Your task to perform on an android device: What does the iPhone 8 look like? Image 0: 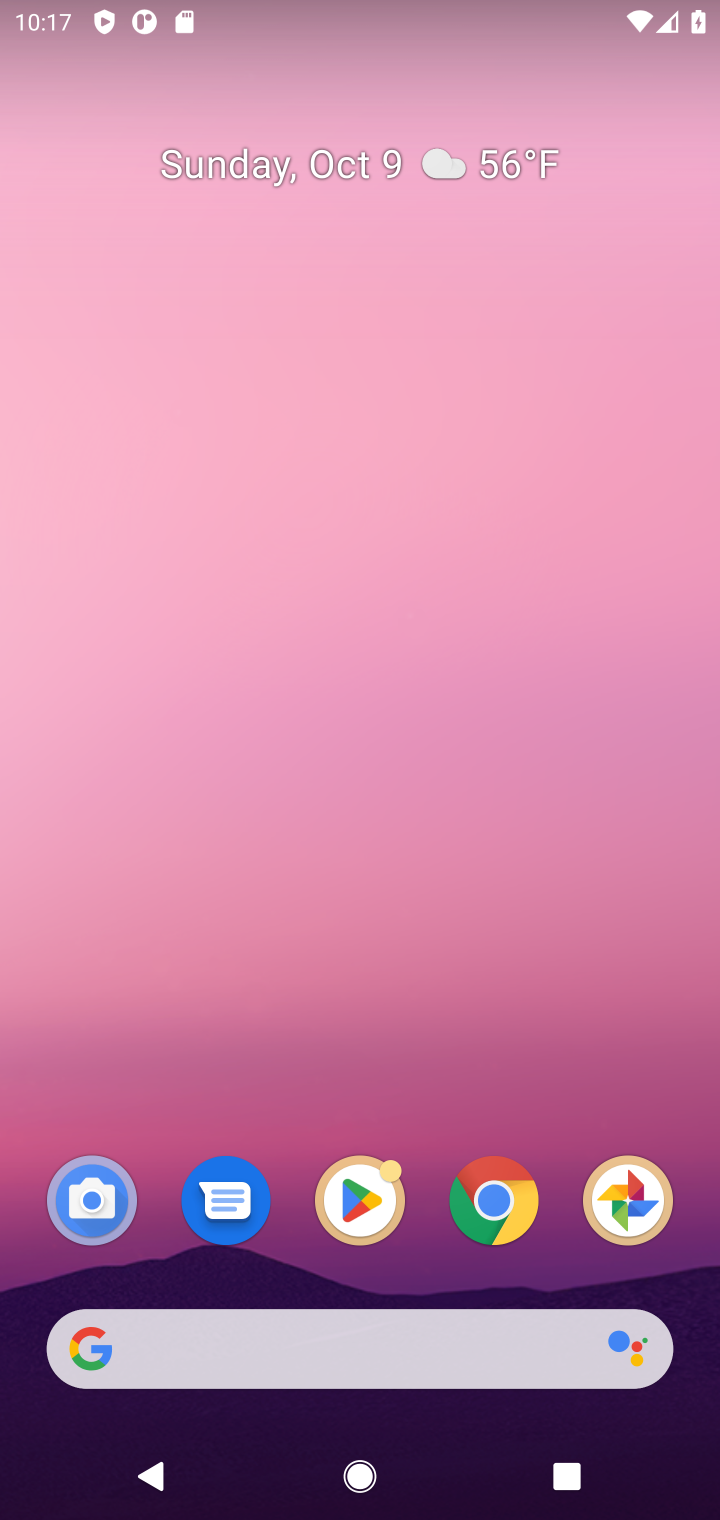
Step 0: drag from (347, 1324) to (118, 390)
Your task to perform on an android device: What does the iPhone 8 look like? Image 1: 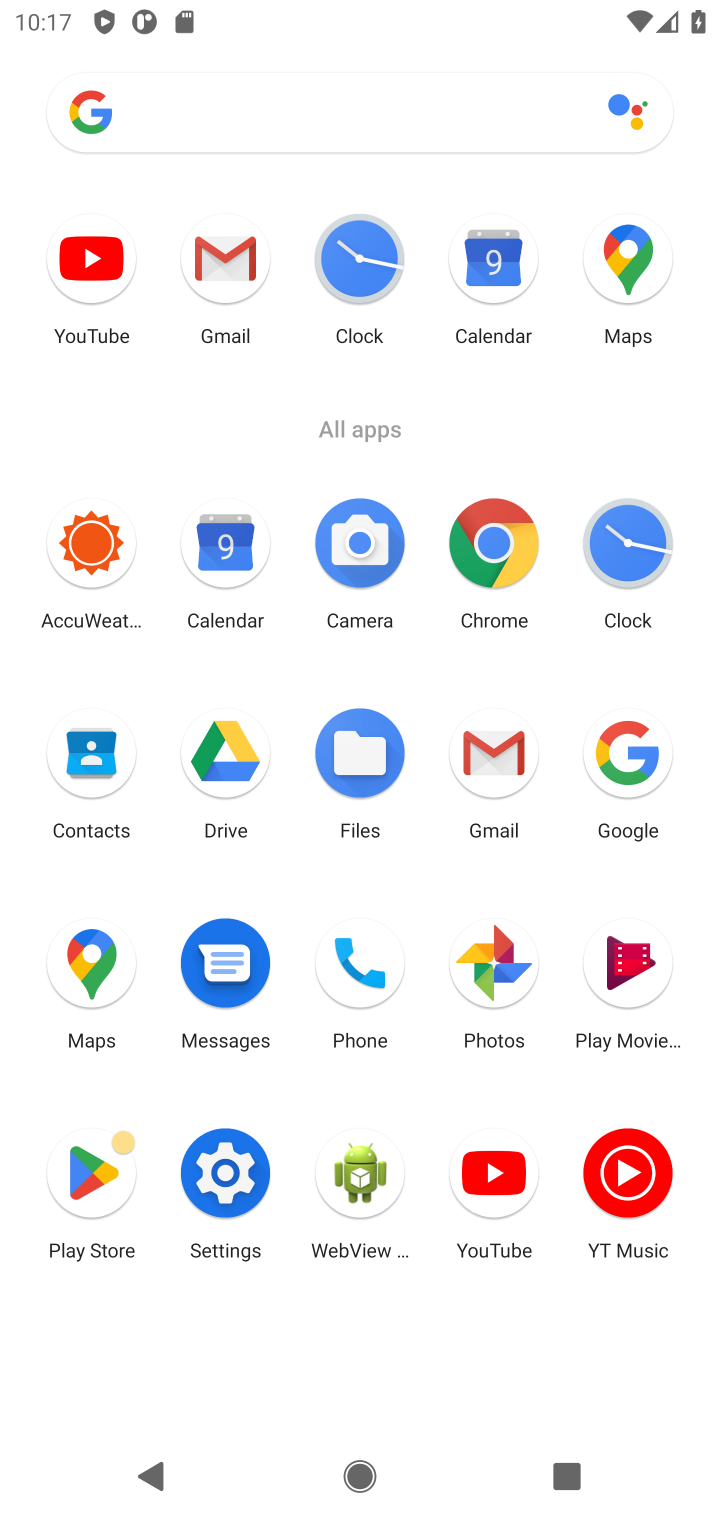
Step 1: click (491, 560)
Your task to perform on an android device: What does the iPhone 8 look like? Image 2: 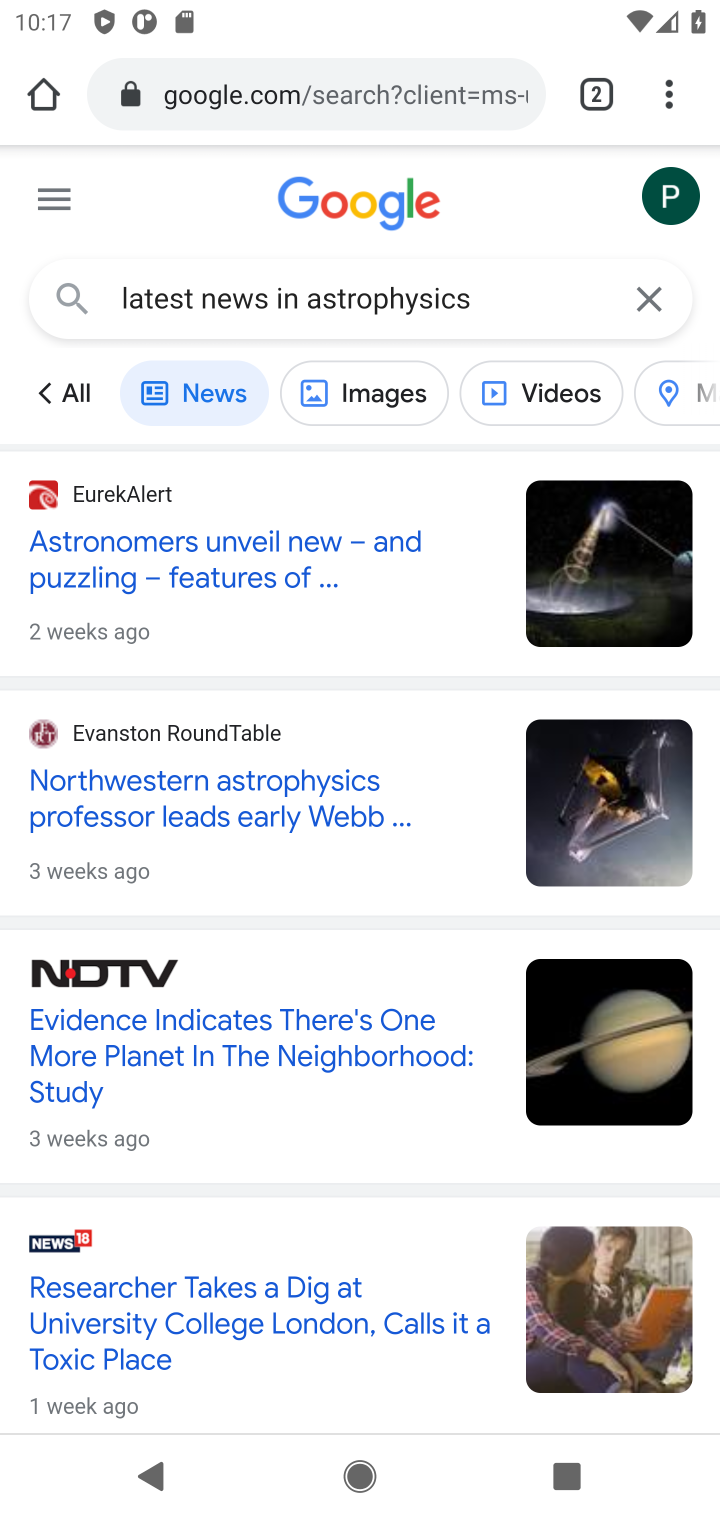
Step 2: click (632, 300)
Your task to perform on an android device: What does the iPhone 8 look like? Image 3: 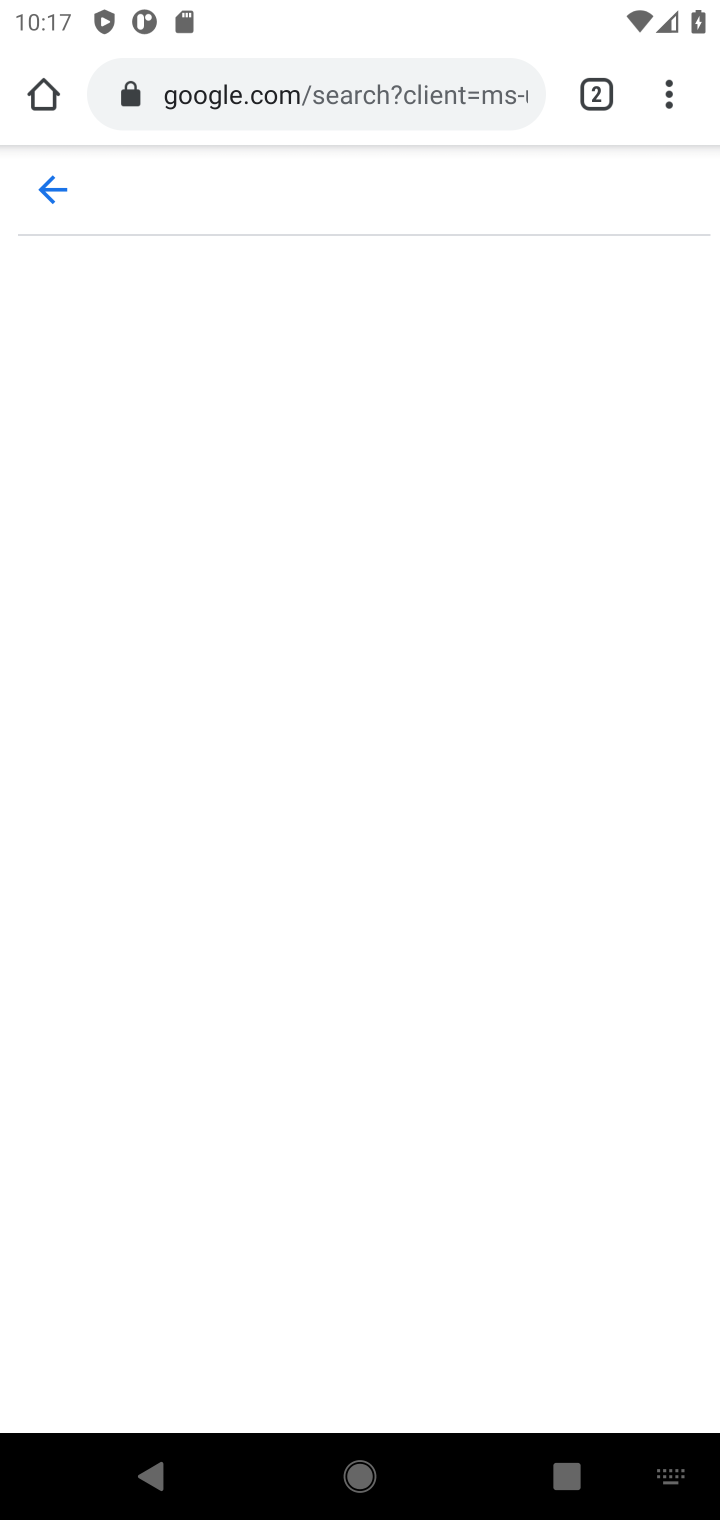
Step 3: type "What does the iPhone 8 look like?"
Your task to perform on an android device: What does the iPhone 8 look like? Image 4: 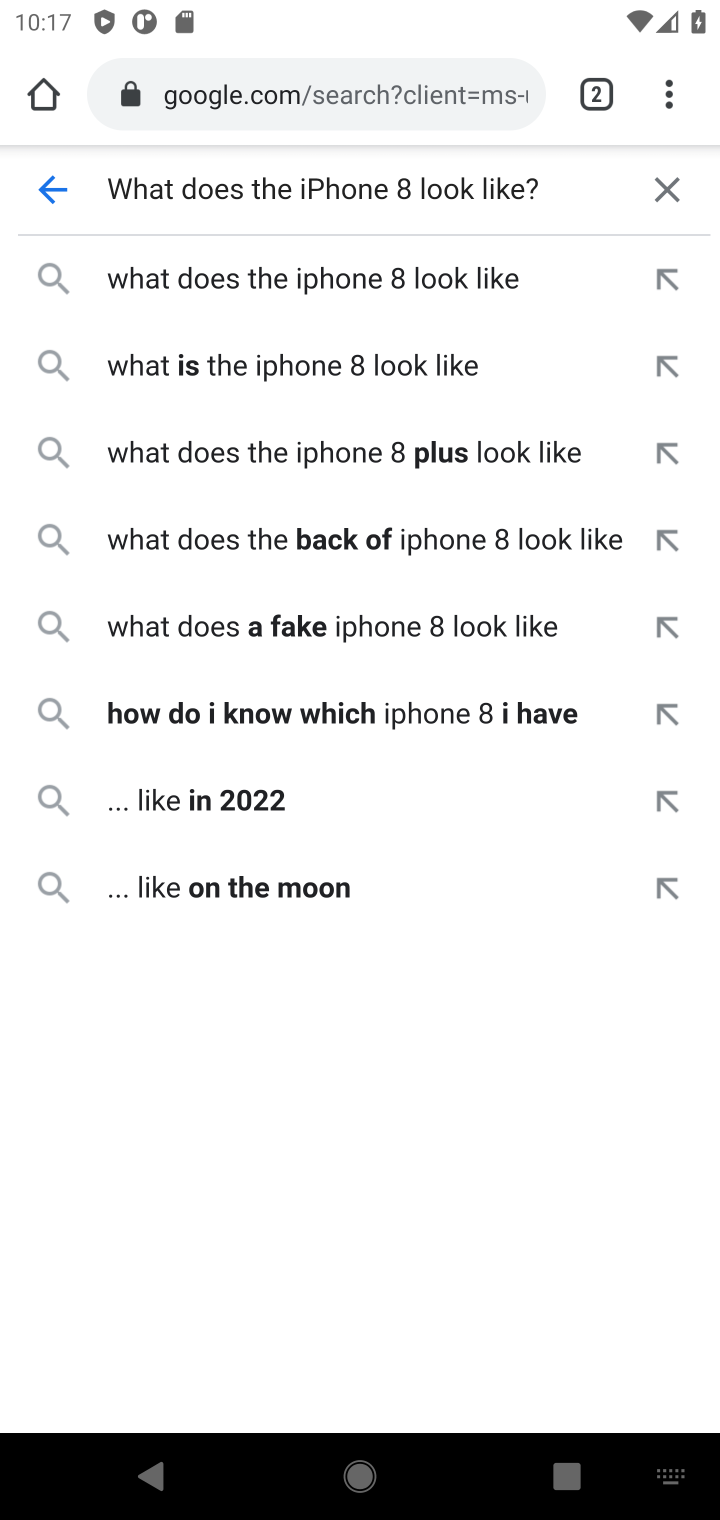
Step 4: click (483, 280)
Your task to perform on an android device: What does the iPhone 8 look like? Image 5: 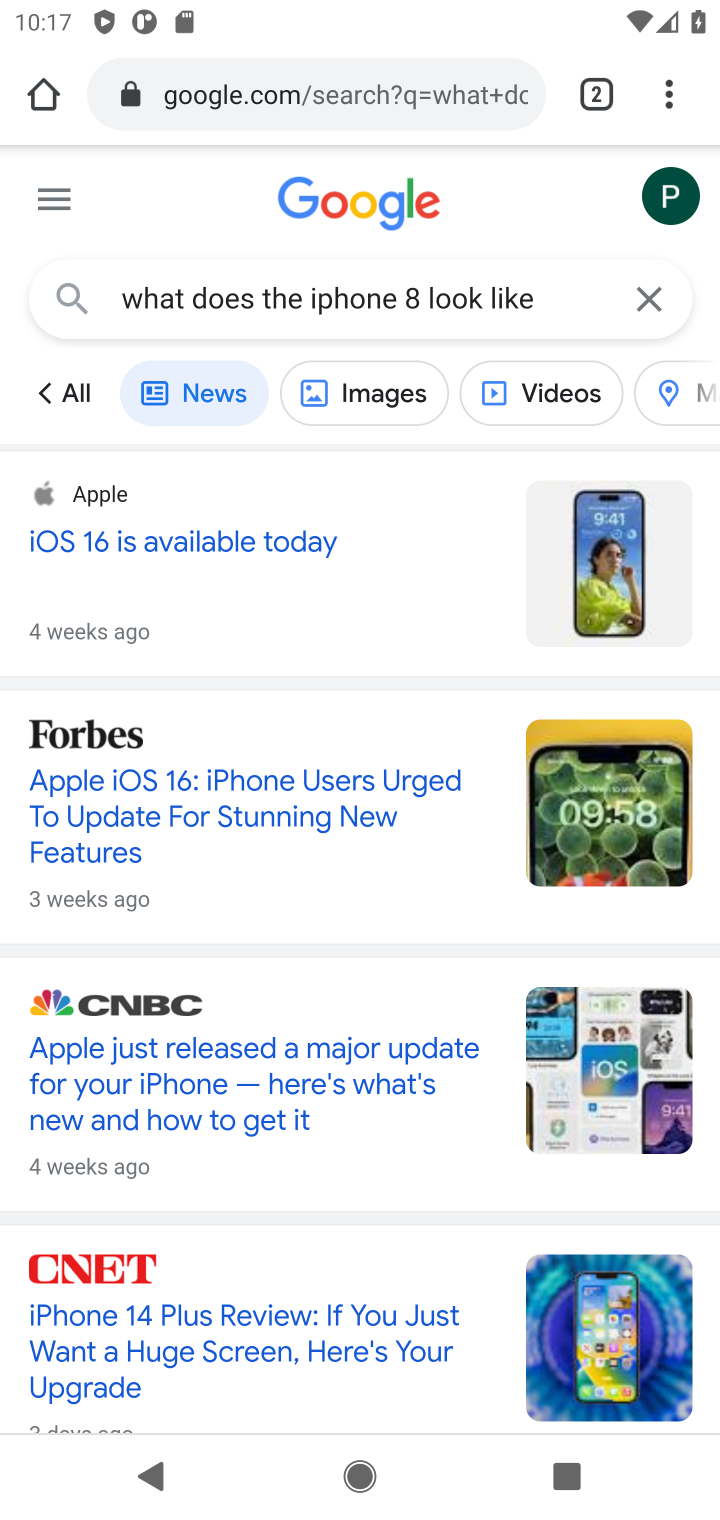
Step 5: click (60, 397)
Your task to perform on an android device: What does the iPhone 8 look like? Image 6: 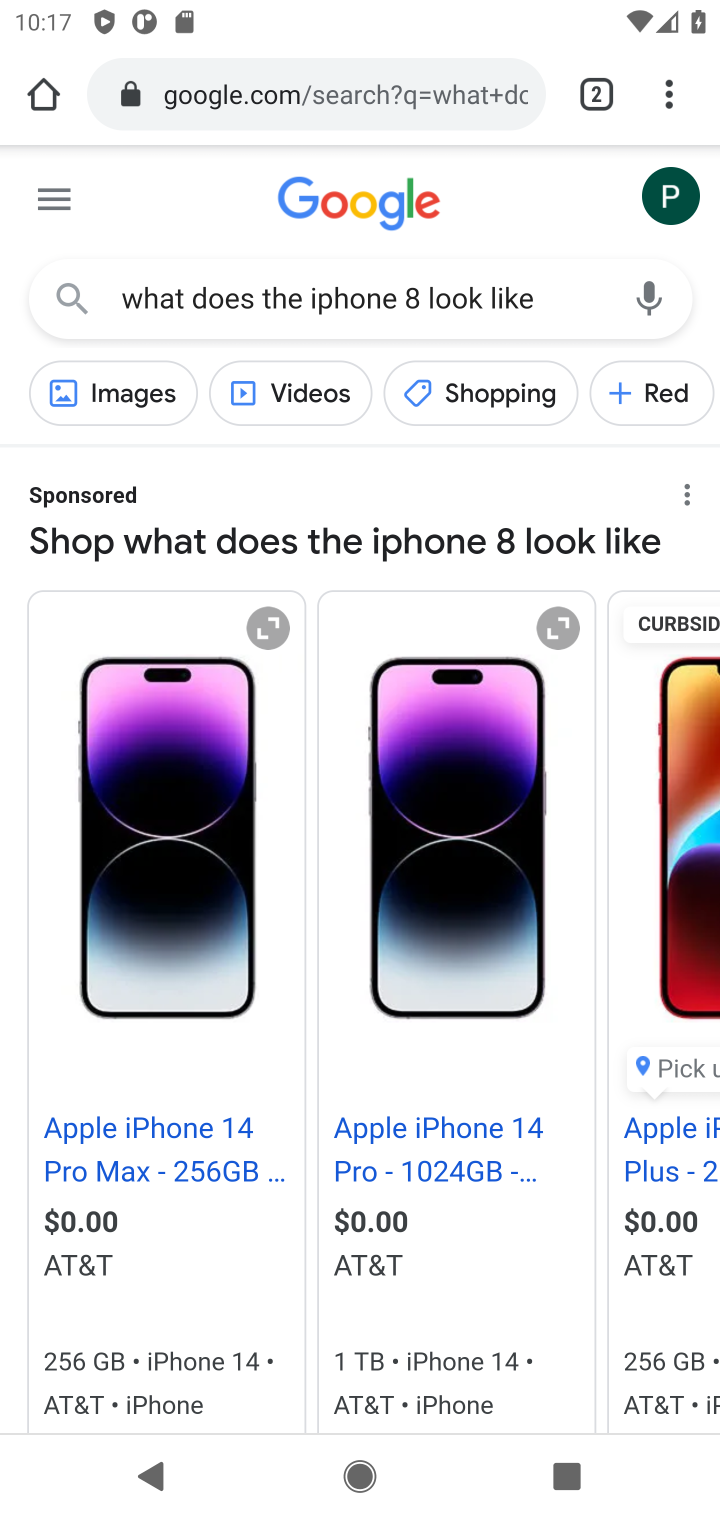
Step 6: task complete